Your task to perform on an android device: Go to Reddit.com Image 0: 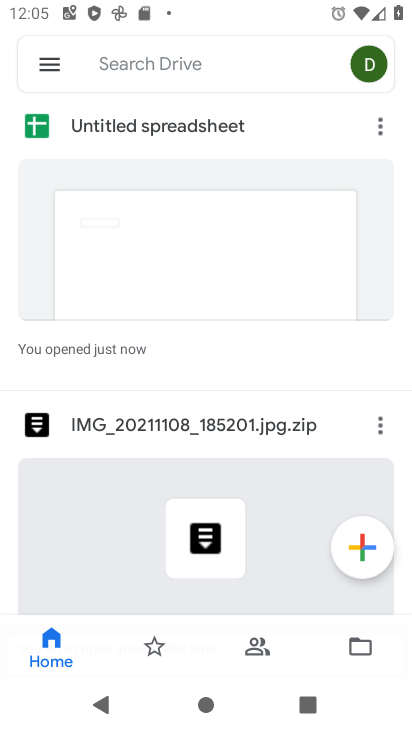
Step 0: press home button
Your task to perform on an android device: Go to Reddit.com Image 1: 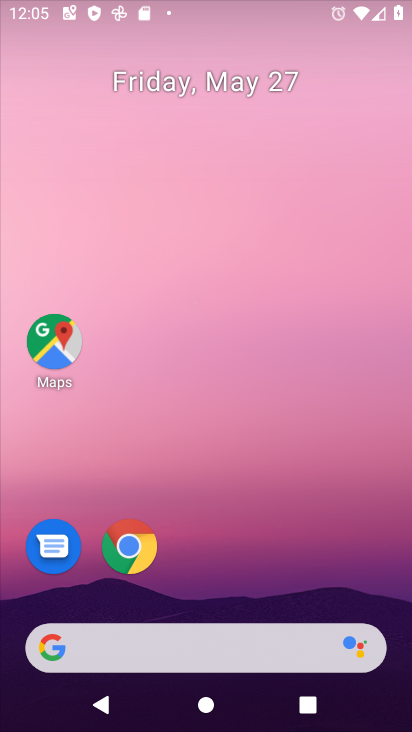
Step 1: drag from (224, 532) to (209, 68)
Your task to perform on an android device: Go to Reddit.com Image 2: 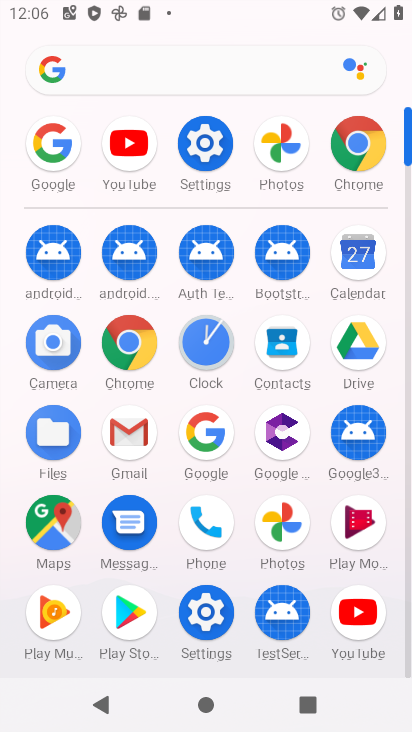
Step 2: click (201, 421)
Your task to perform on an android device: Go to Reddit.com Image 3: 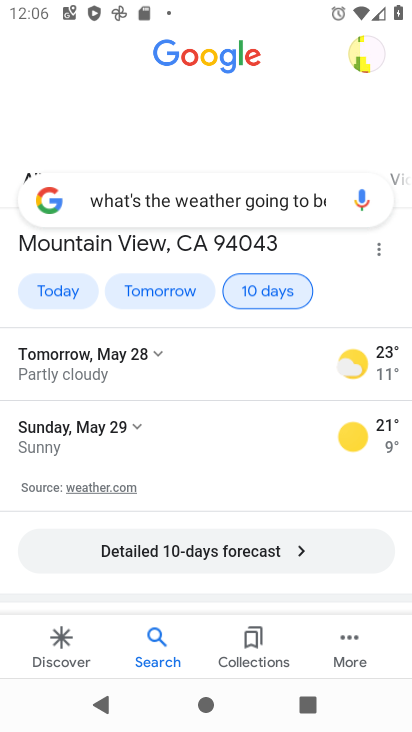
Step 3: click (314, 200)
Your task to perform on an android device: Go to Reddit.com Image 4: 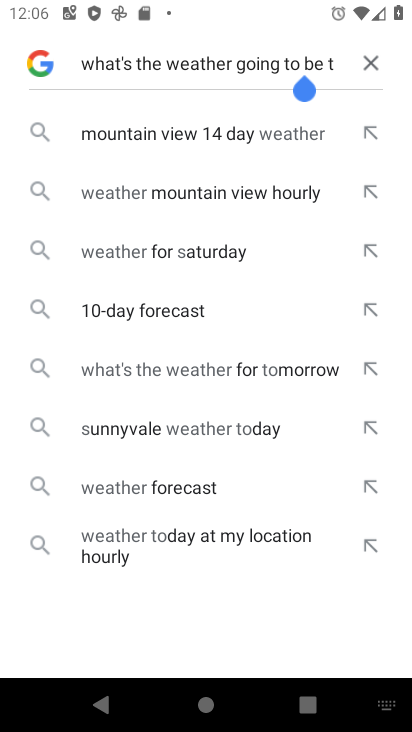
Step 4: click (376, 63)
Your task to perform on an android device: Go to Reddit.com Image 5: 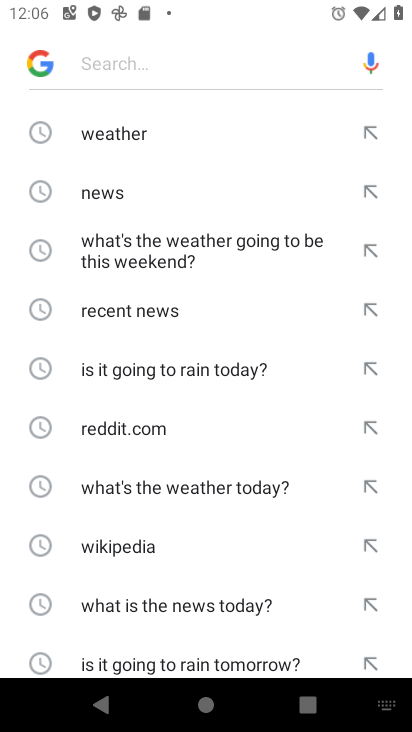
Step 5: click (154, 426)
Your task to perform on an android device: Go to Reddit.com Image 6: 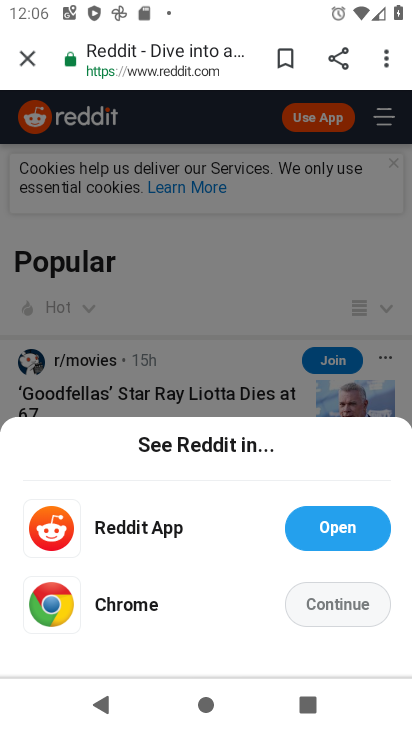
Step 6: task complete